Your task to perform on an android device: Go to Yahoo.com Image 0: 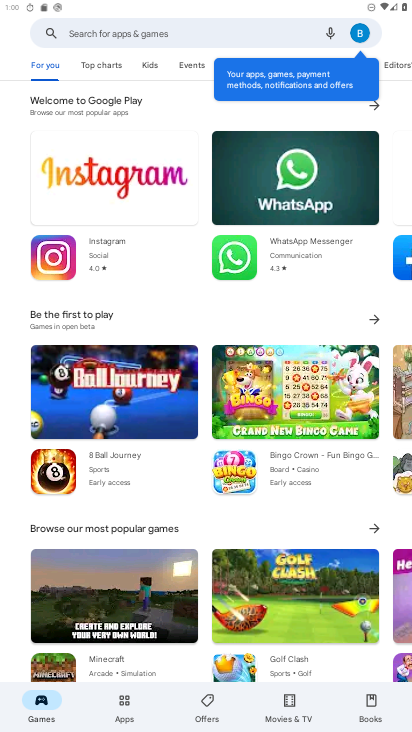
Step 0: press home button
Your task to perform on an android device: Go to Yahoo.com Image 1: 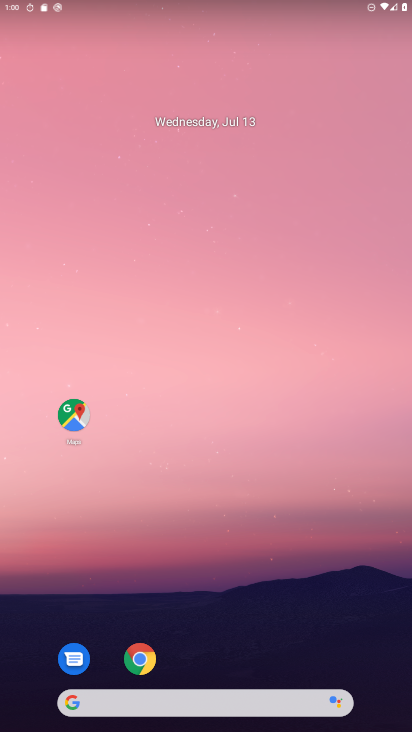
Step 1: drag from (187, 678) to (273, 6)
Your task to perform on an android device: Go to Yahoo.com Image 2: 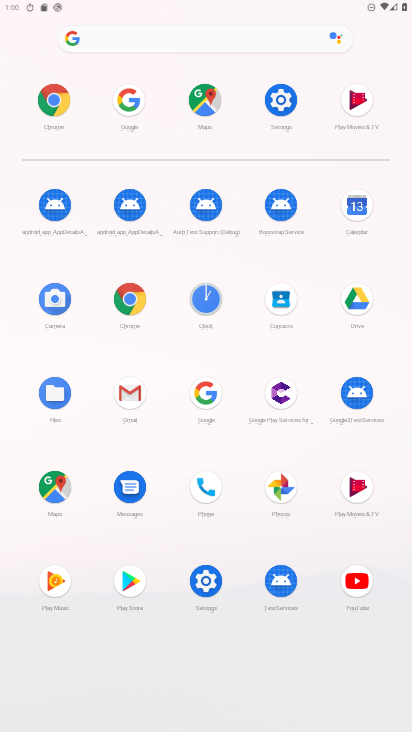
Step 2: click (139, 298)
Your task to perform on an android device: Go to Yahoo.com Image 3: 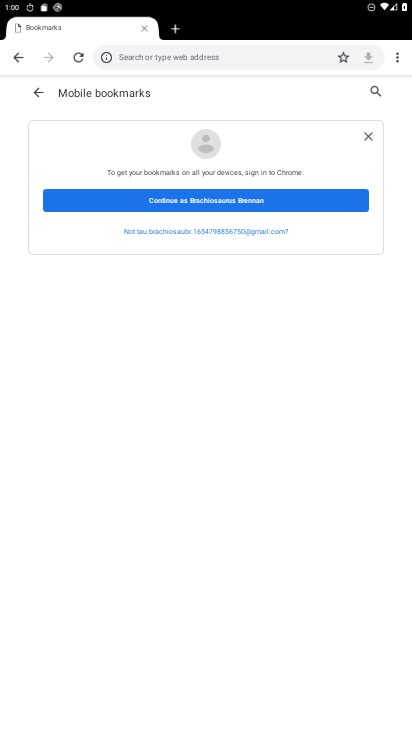
Step 3: click (373, 76)
Your task to perform on an android device: Go to Yahoo.com Image 4: 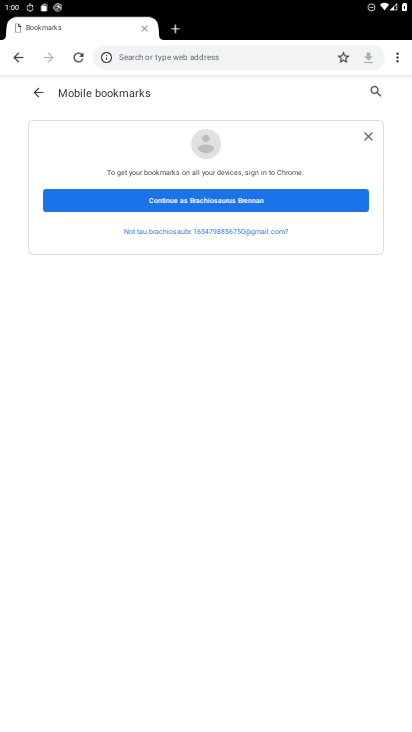
Step 4: click (393, 57)
Your task to perform on an android device: Go to Yahoo.com Image 5: 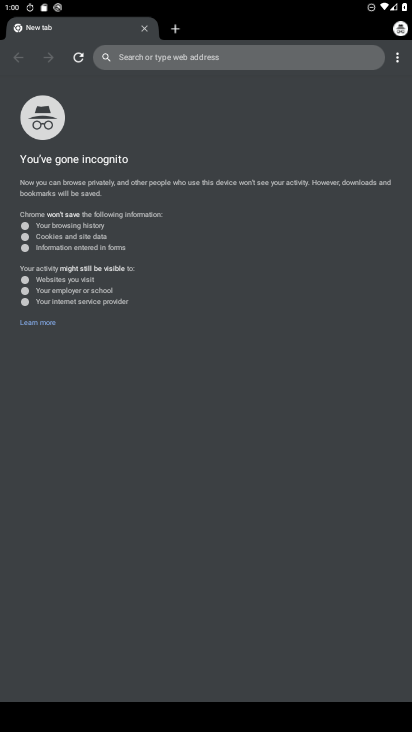
Step 5: drag from (402, 58) to (323, 49)
Your task to perform on an android device: Go to Yahoo.com Image 6: 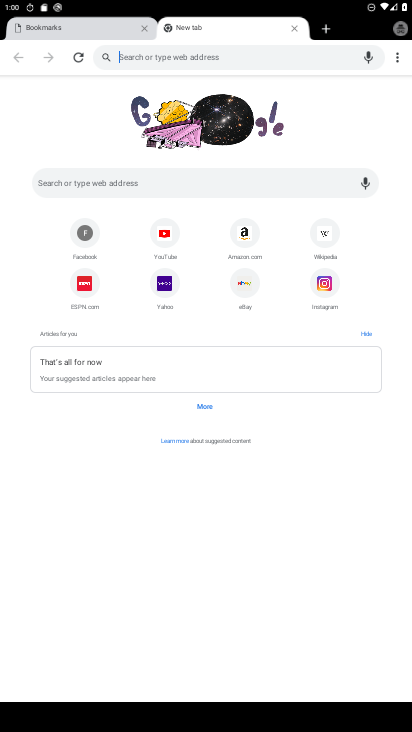
Step 6: click (168, 297)
Your task to perform on an android device: Go to Yahoo.com Image 7: 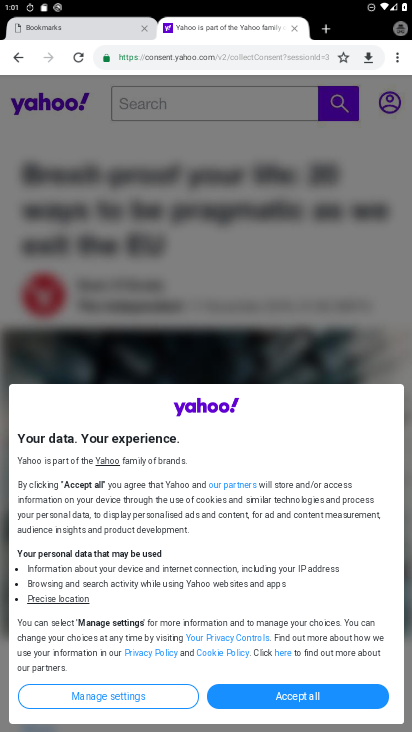
Step 7: task complete